Your task to perform on an android device: Go to accessibility settings Image 0: 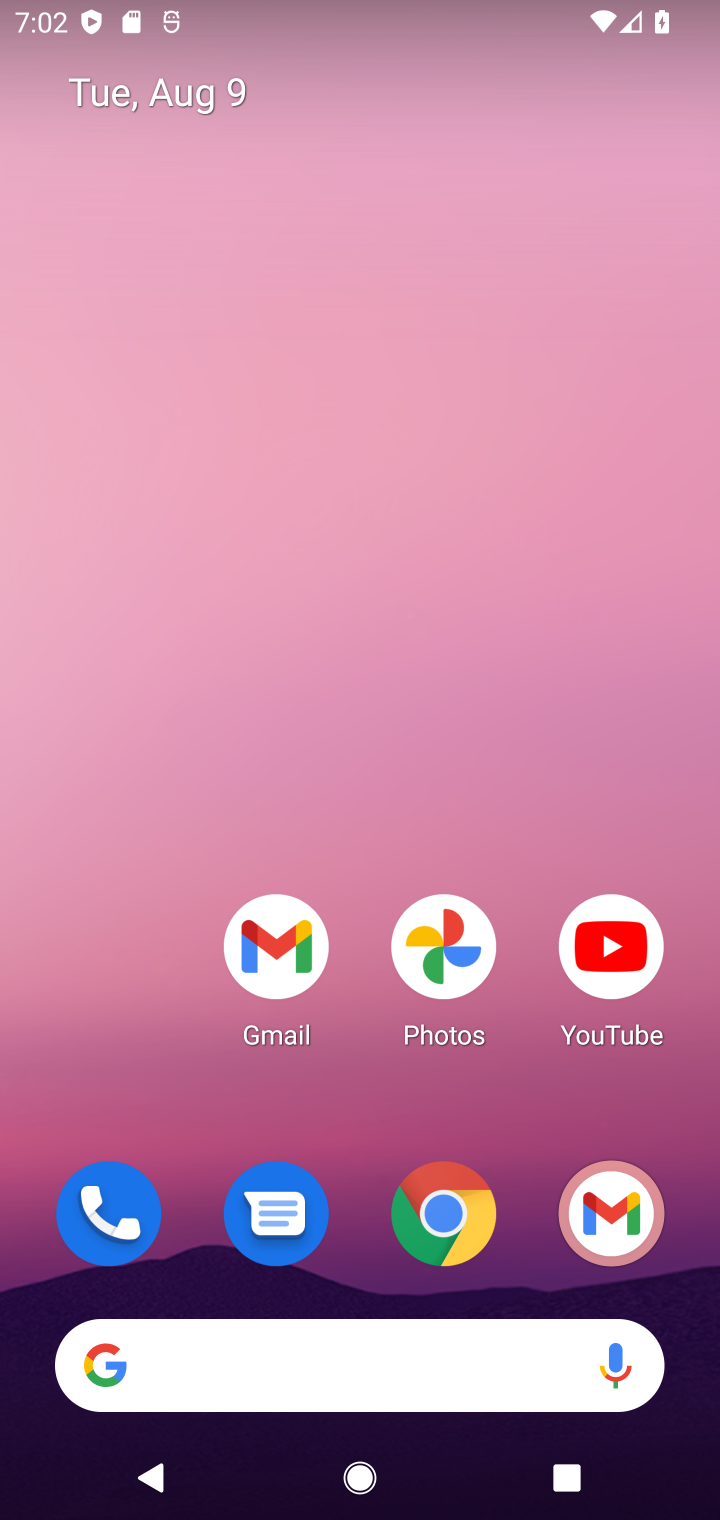
Step 0: drag from (384, 1291) to (587, 973)
Your task to perform on an android device: Go to accessibility settings Image 1: 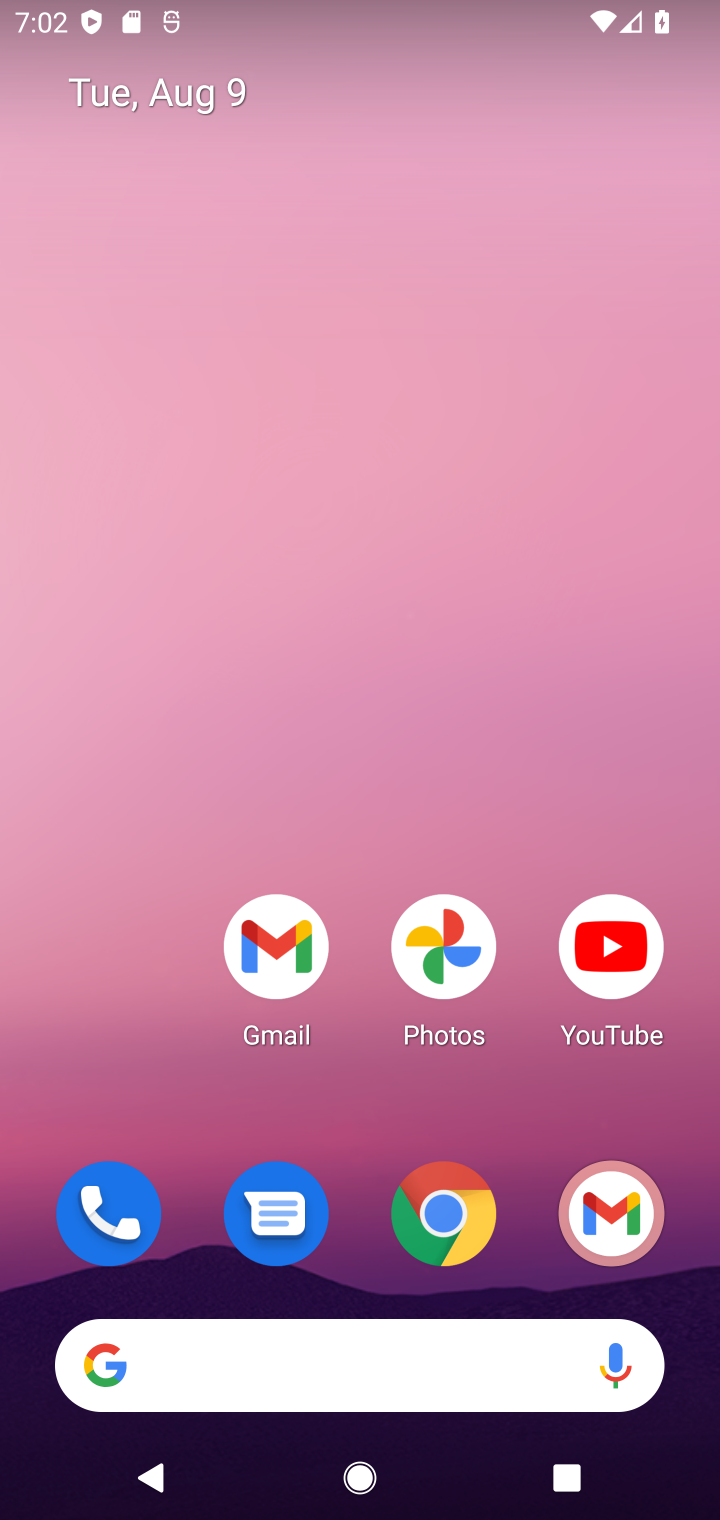
Step 1: click (447, 1156)
Your task to perform on an android device: Go to accessibility settings Image 2: 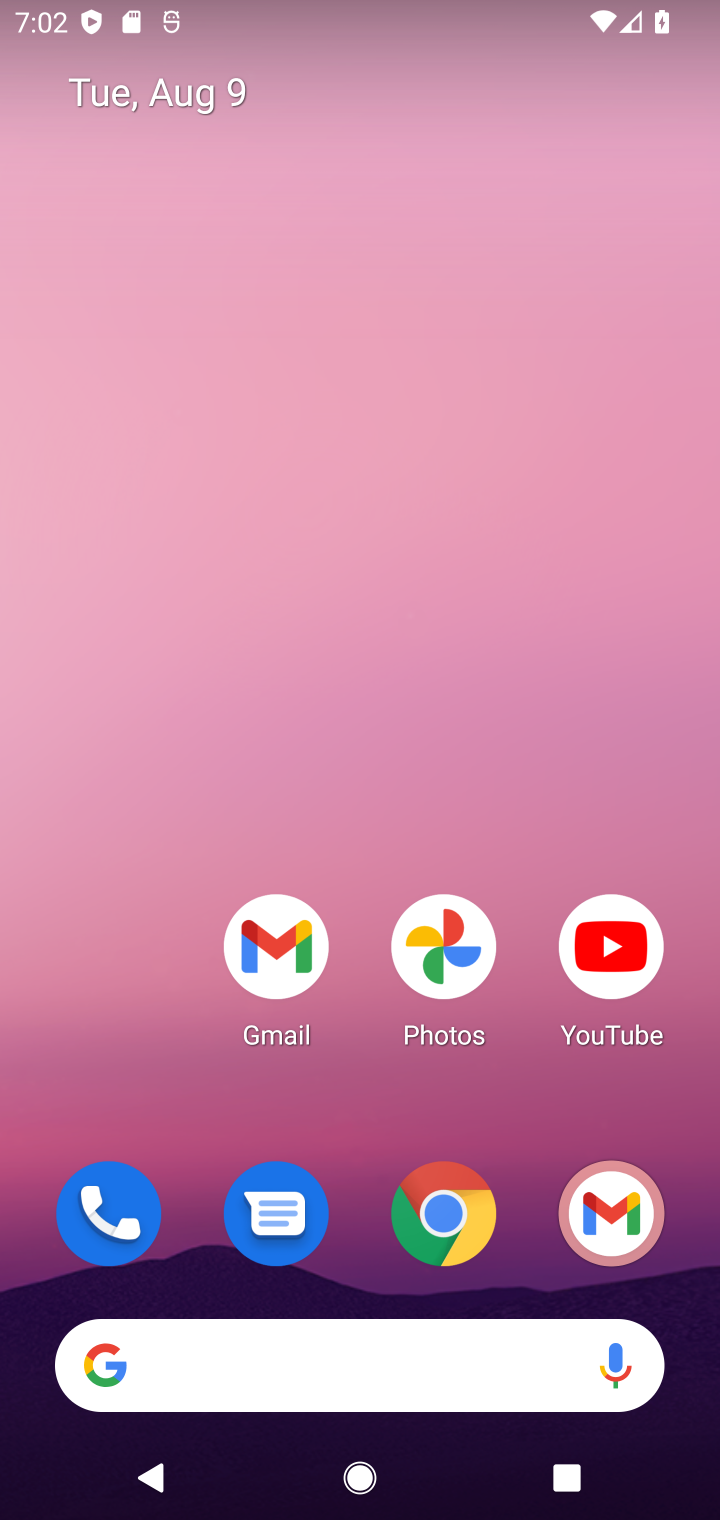
Step 2: drag from (369, 1241) to (352, 66)
Your task to perform on an android device: Go to accessibility settings Image 3: 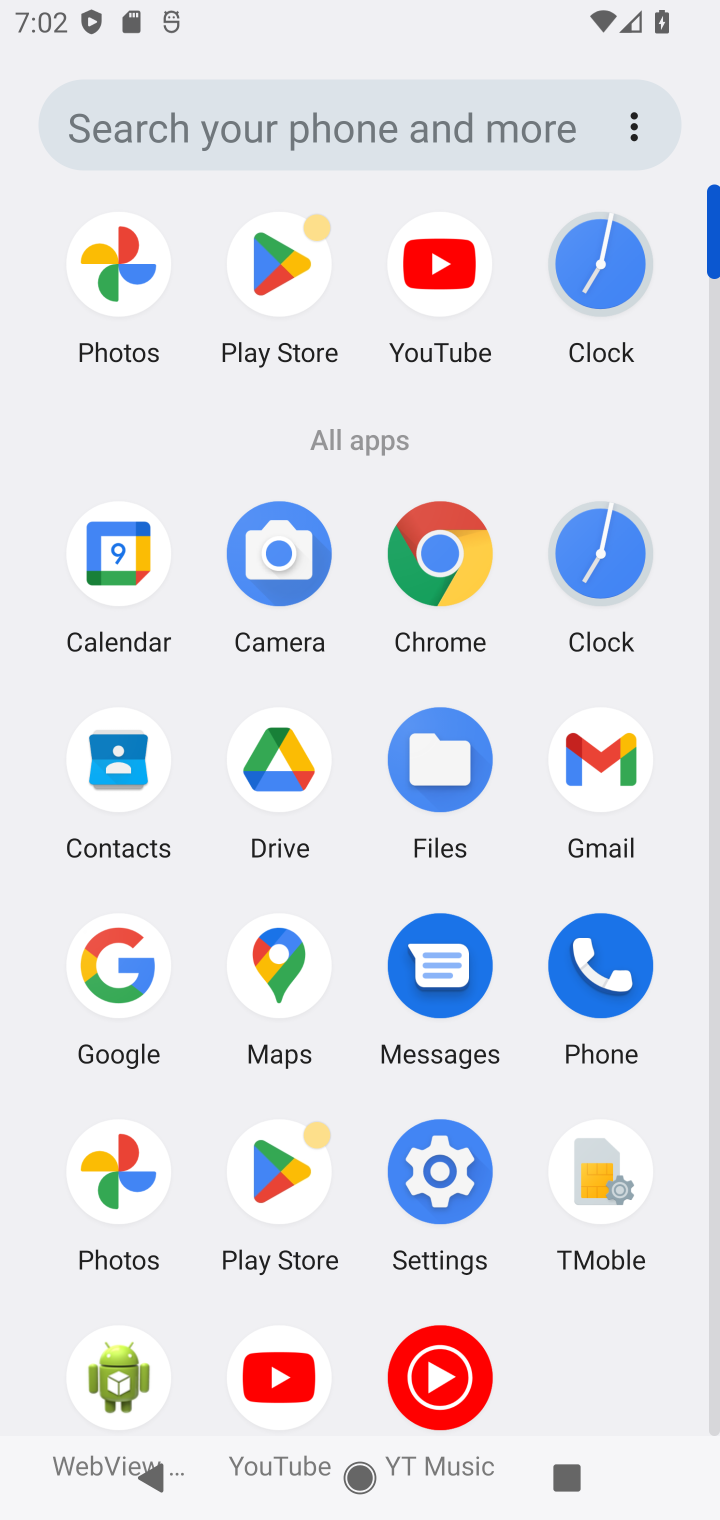
Step 3: click (451, 1166)
Your task to perform on an android device: Go to accessibility settings Image 4: 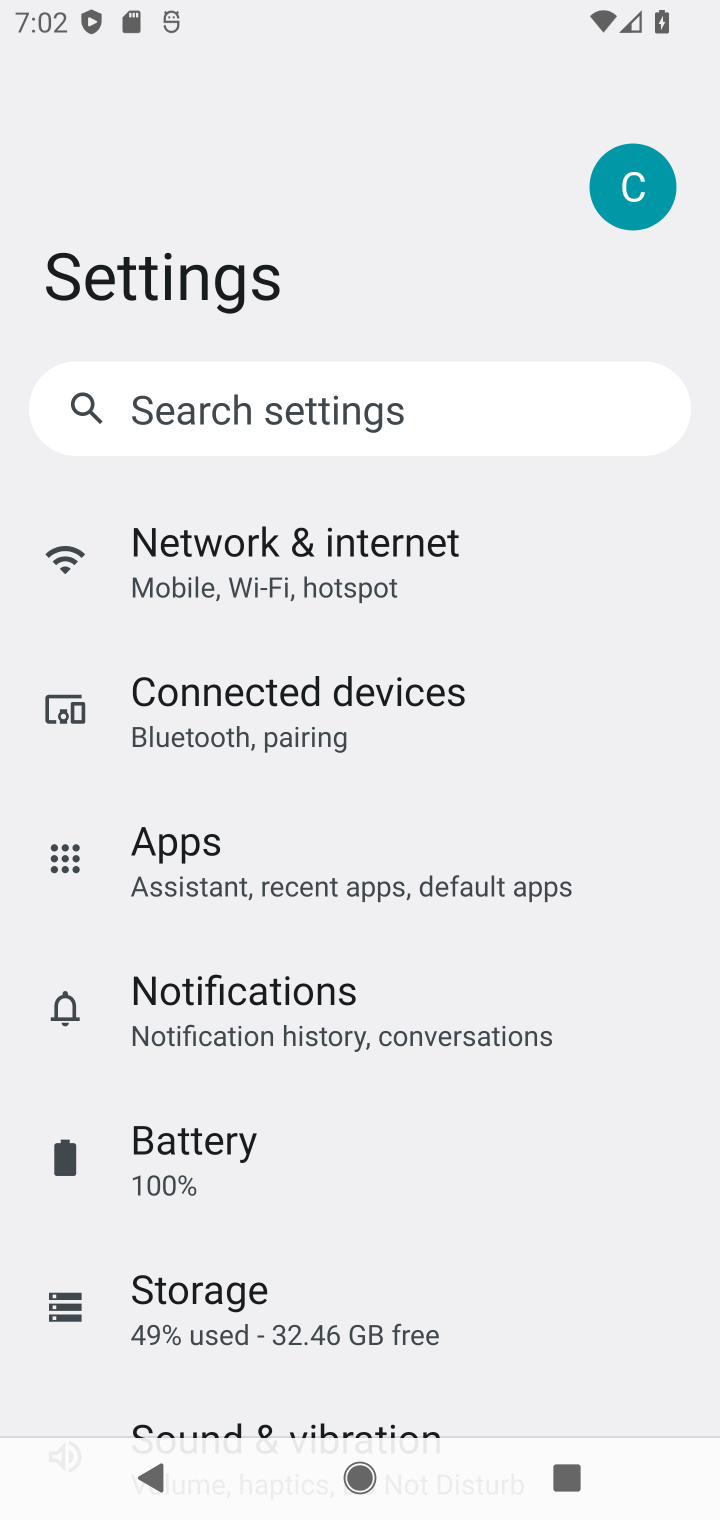
Step 4: drag from (451, 1166) to (394, 117)
Your task to perform on an android device: Go to accessibility settings Image 5: 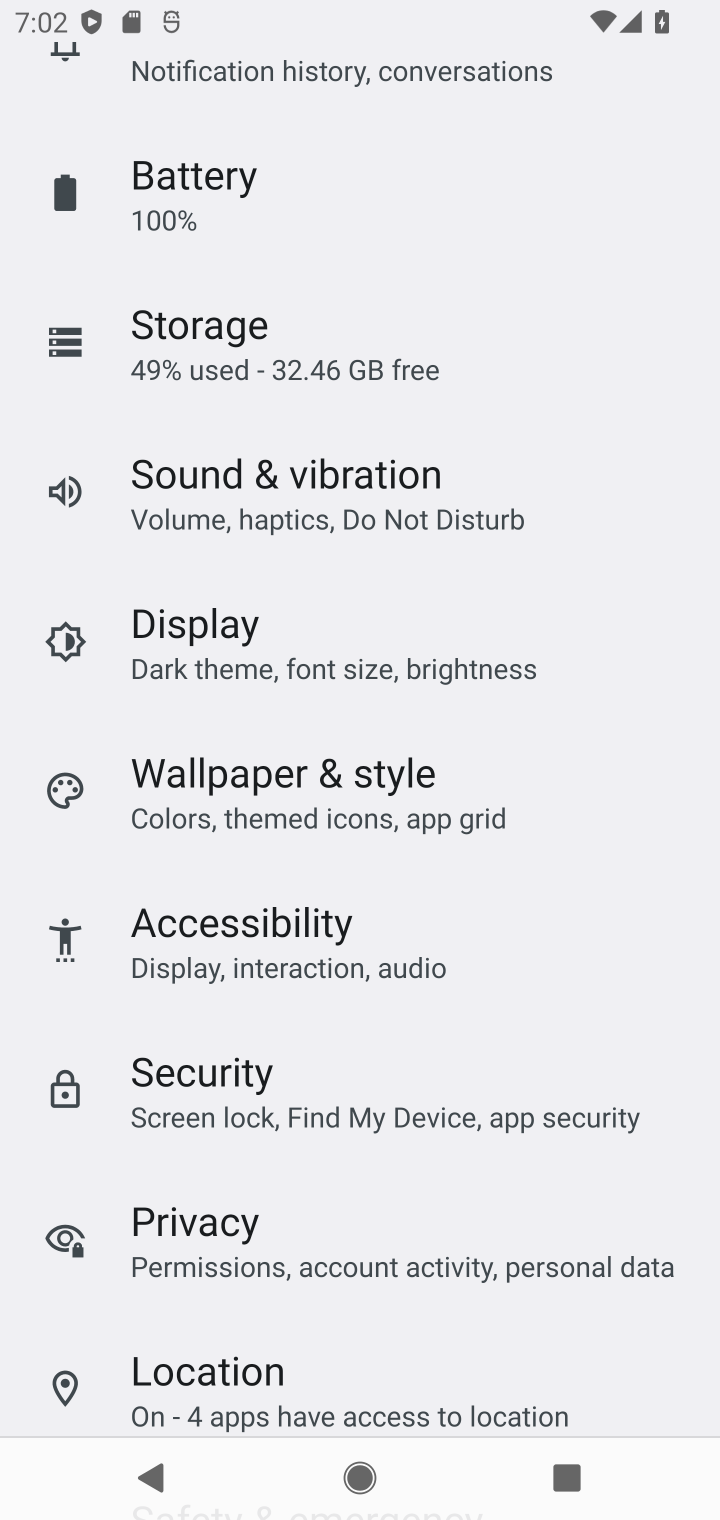
Step 5: click (247, 934)
Your task to perform on an android device: Go to accessibility settings Image 6: 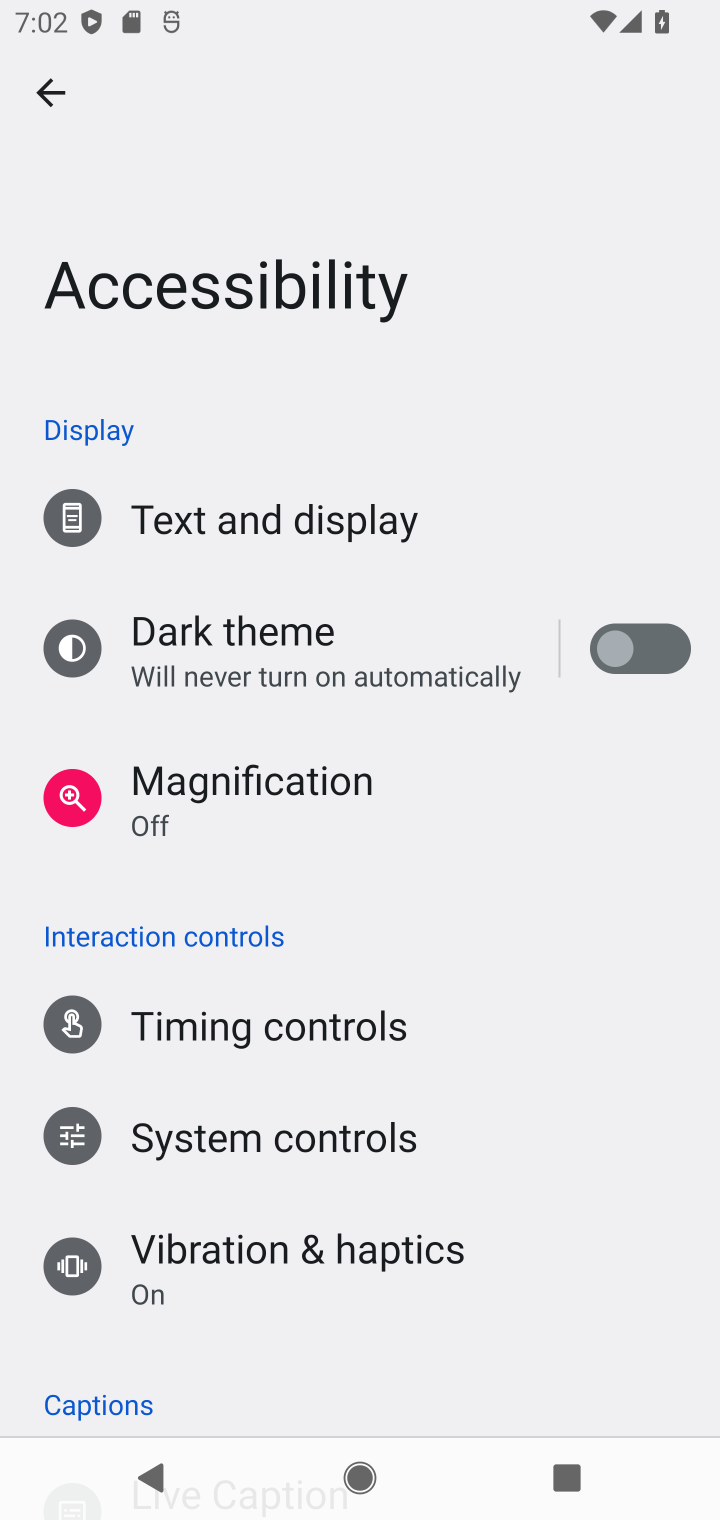
Step 6: task complete